Your task to perform on an android device: What's the price of the TCL TV? Image 0: 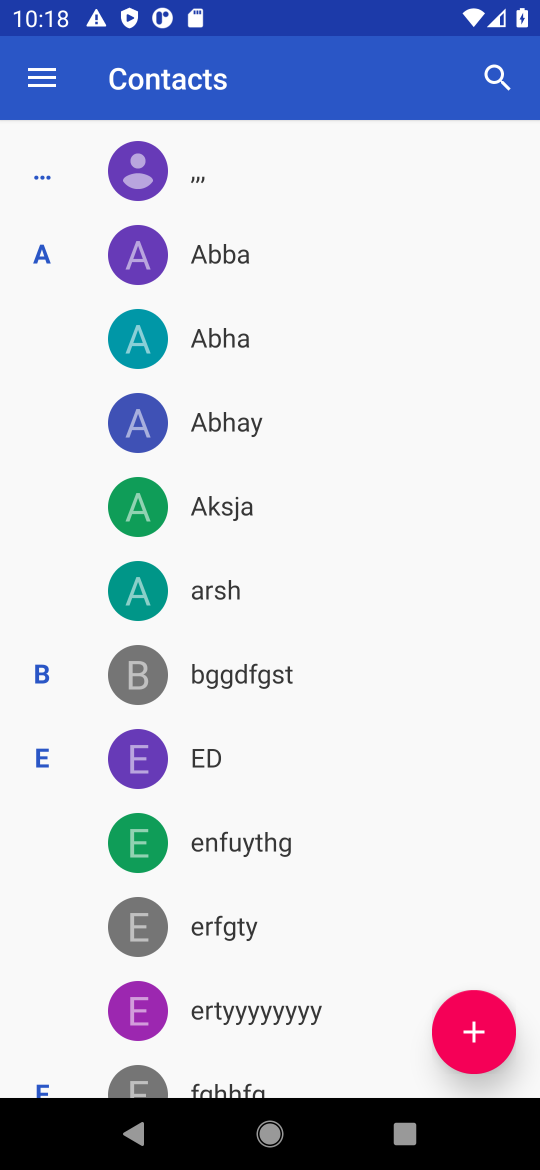
Step 0: press home button
Your task to perform on an android device: What's the price of the TCL TV? Image 1: 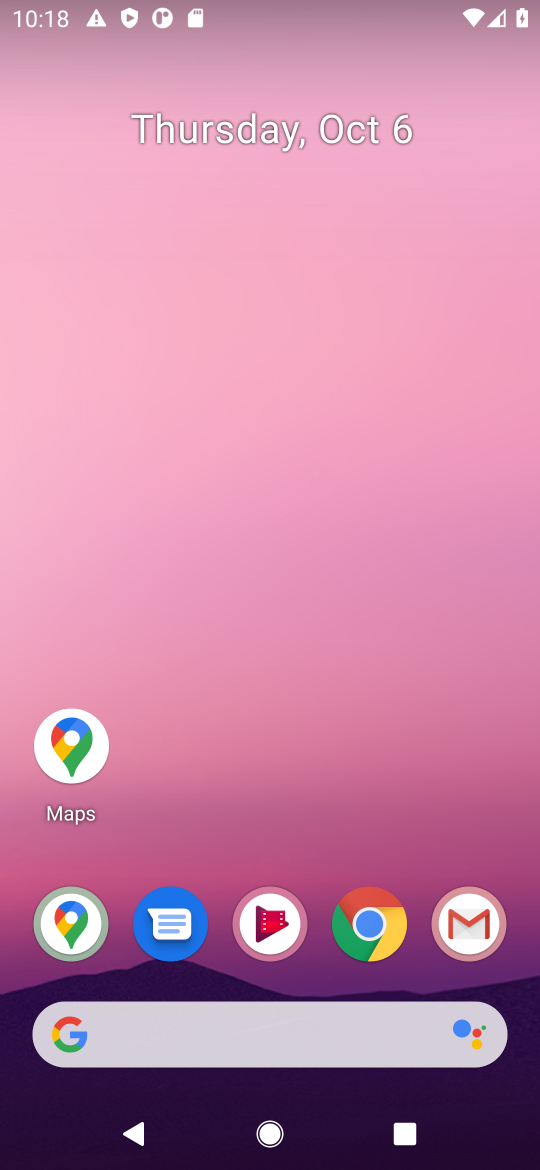
Step 1: click (533, 908)
Your task to perform on an android device: What's the price of the TCL TV? Image 2: 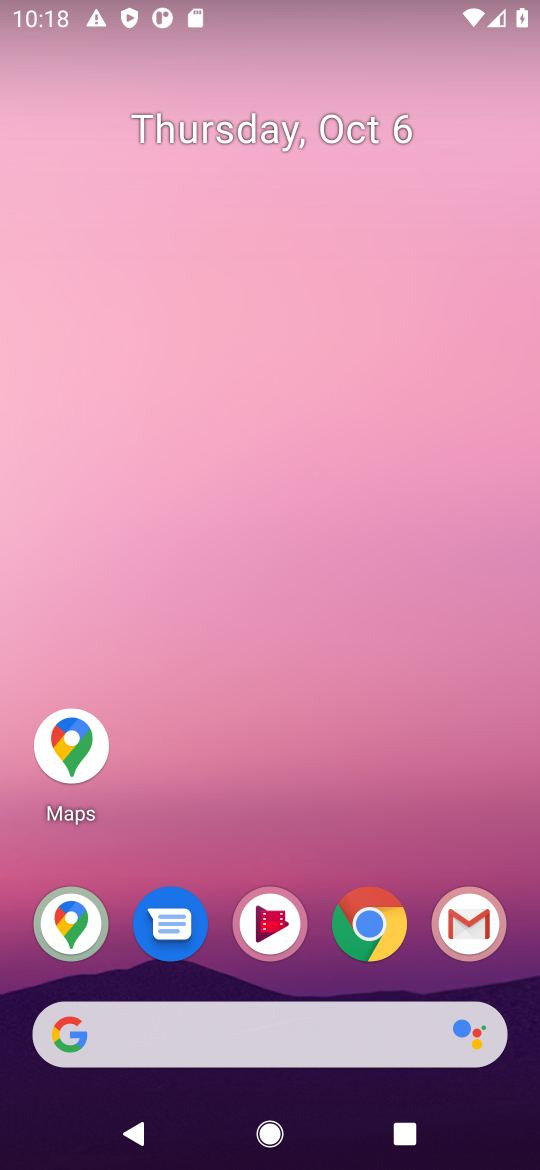
Step 2: click (358, 920)
Your task to perform on an android device: What's the price of the TCL TV? Image 3: 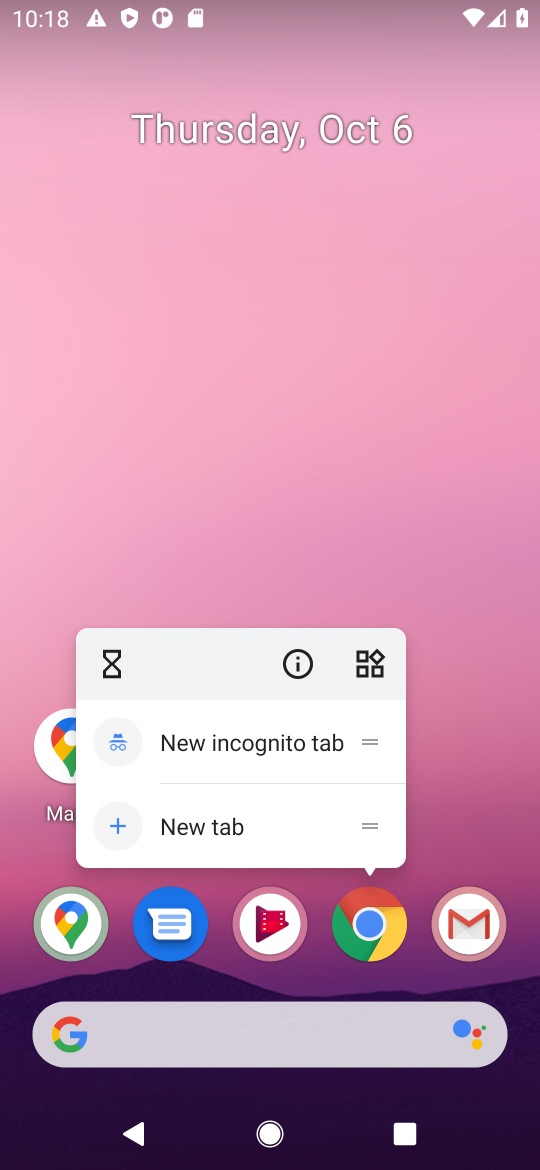
Step 3: click (389, 931)
Your task to perform on an android device: What's the price of the TCL TV? Image 4: 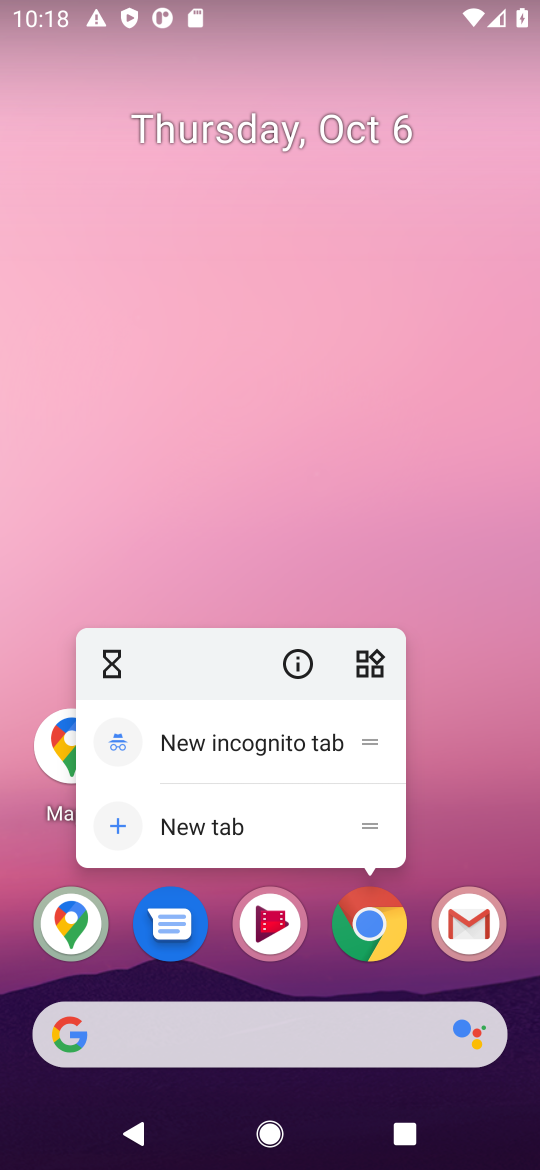
Step 4: click (378, 926)
Your task to perform on an android device: What's the price of the TCL TV? Image 5: 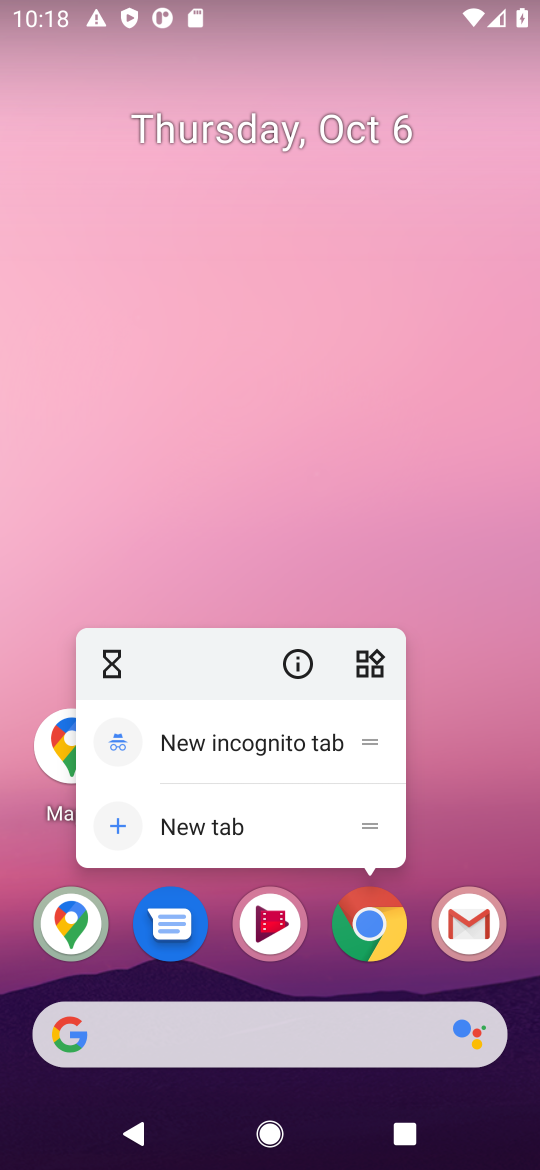
Step 5: click (371, 924)
Your task to perform on an android device: What's the price of the TCL TV? Image 6: 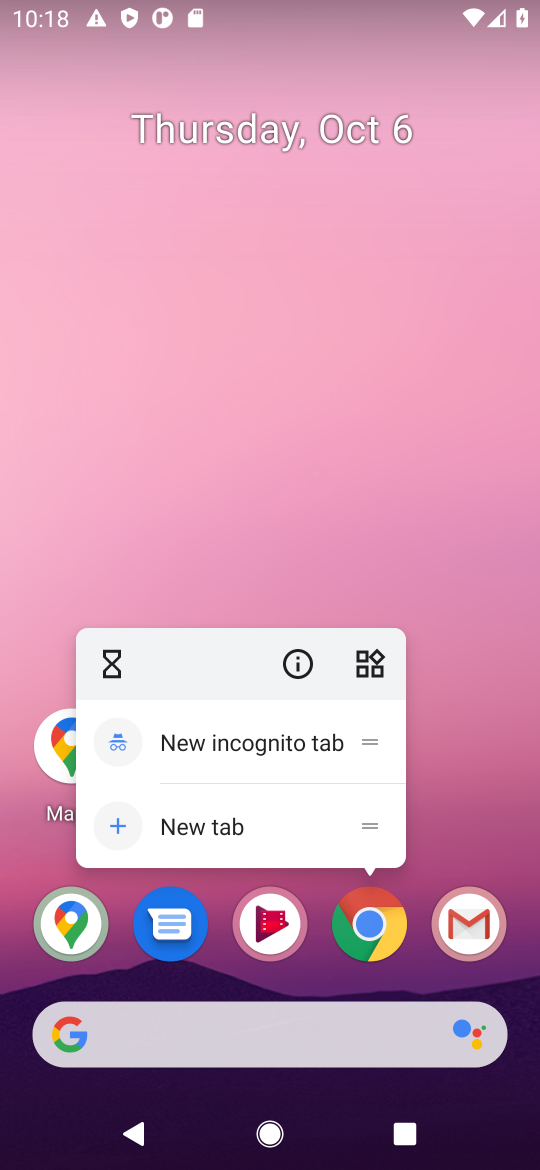
Step 6: click (371, 925)
Your task to perform on an android device: What's the price of the TCL TV? Image 7: 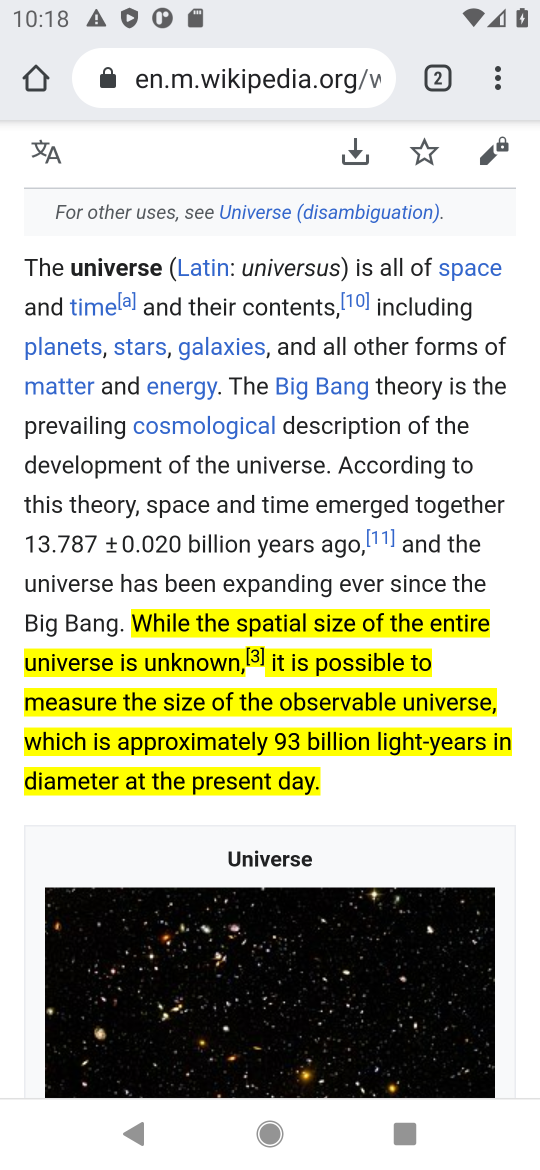
Step 7: click (254, 80)
Your task to perform on an android device: What's the price of the TCL TV? Image 8: 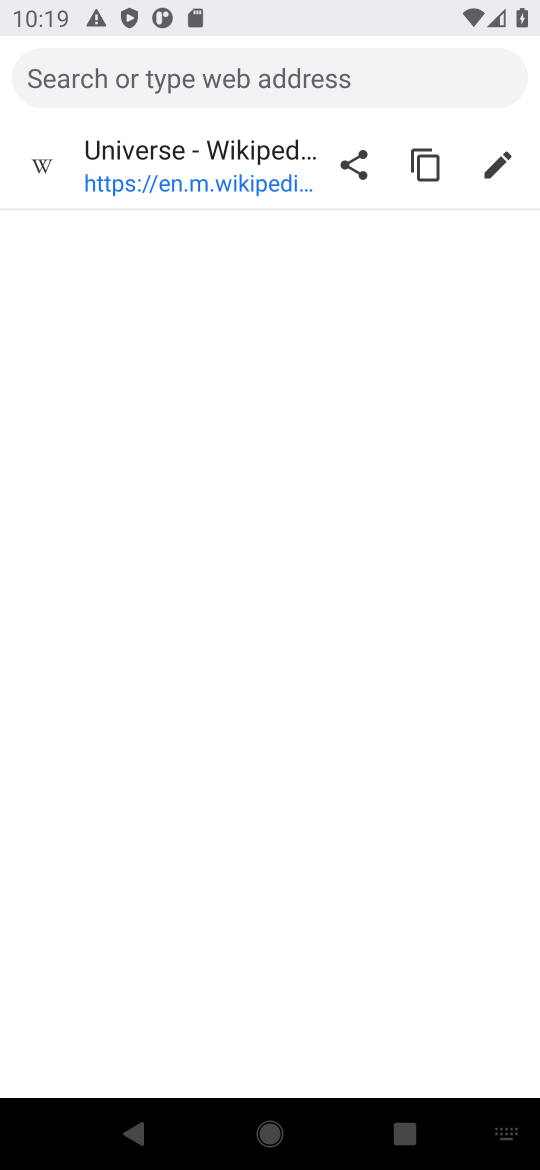
Step 8: type "price of the TCL TV"
Your task to perform on an android device: What's the price of the TCL TV? Image 9: 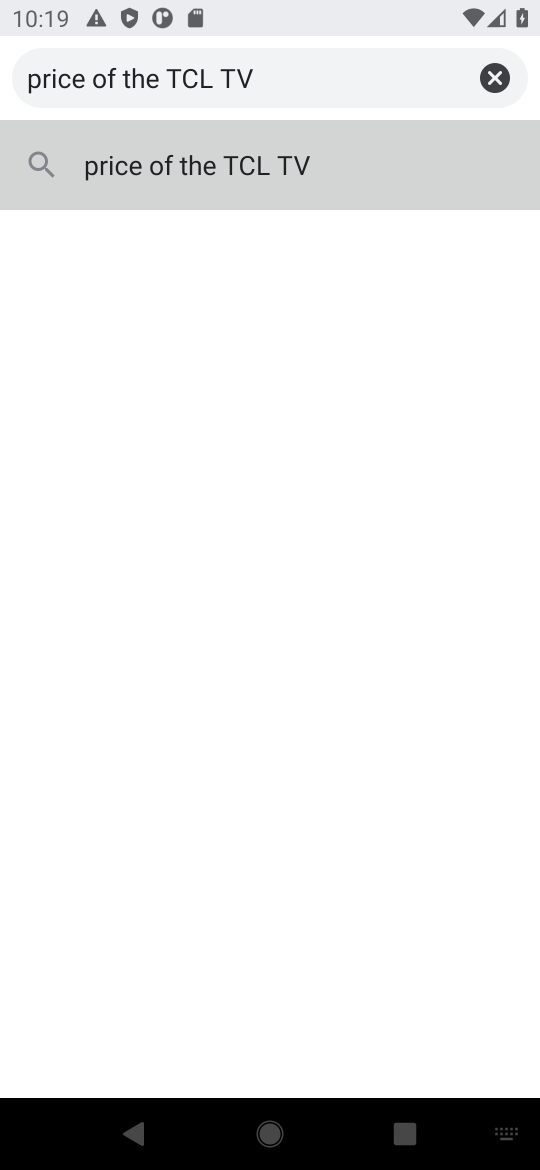
Step 9: click (258, 160)
Your task to perform on an android device: What's the price of the TCL TV? Image 10: 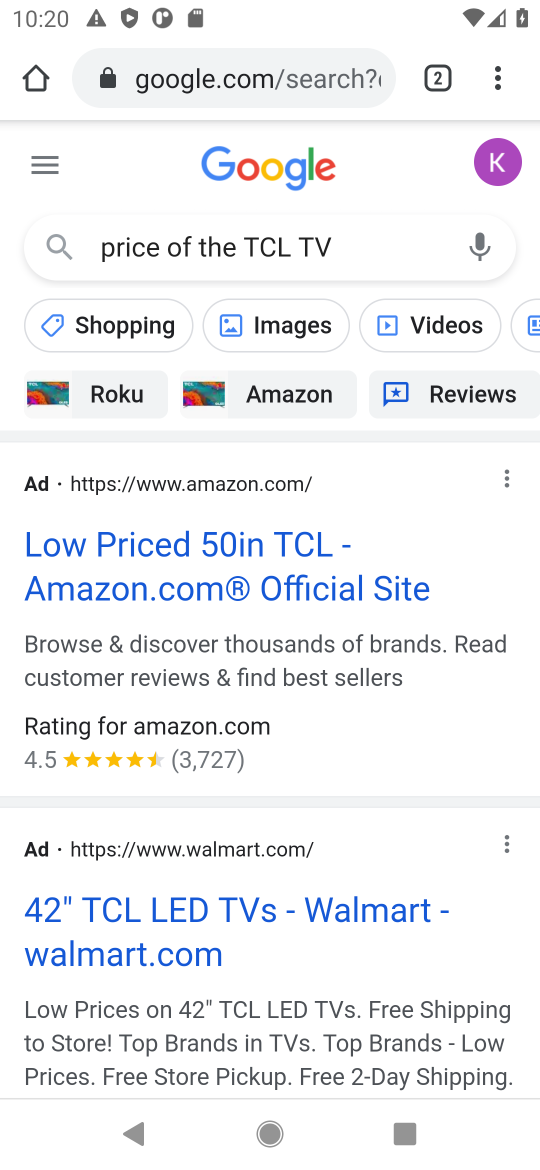
Step 10: drag from (193, 1003) to (315, 657)
Your task to perform on an android device: What's the price of the TCL TV? Image 11: 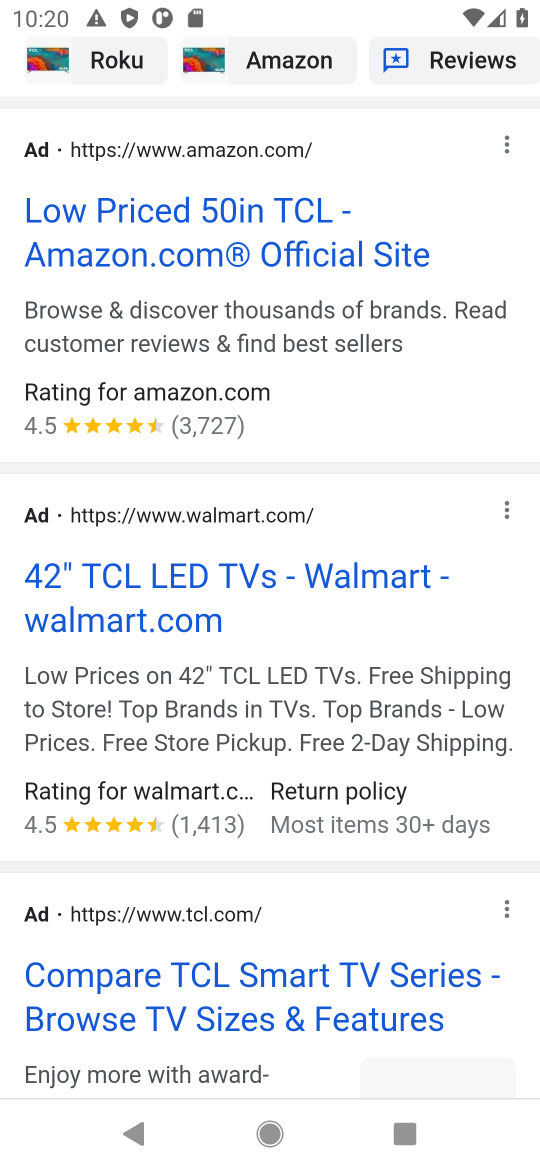
Step 11: click (174, 218)
Your task to perform on an android device: What's the price of the TCL TV? Image 12: 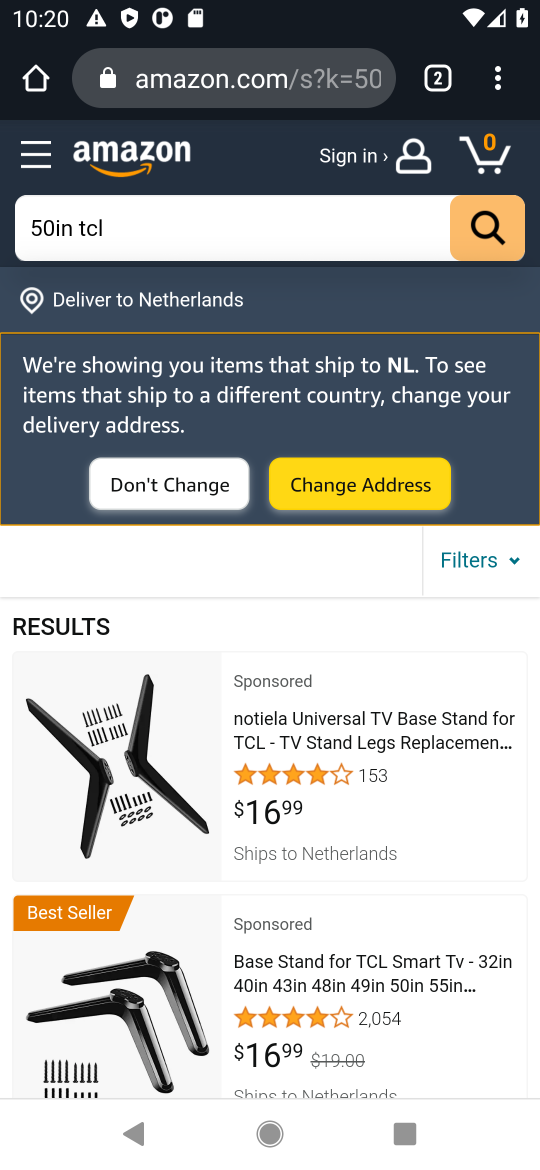
Step 12: task complete